Your task to perform on an android device: turn pop-ups off in chrome Image 0: 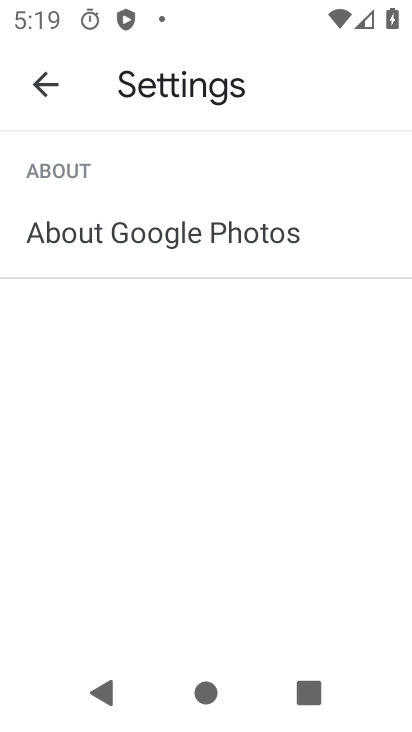
Step 0: press home button
Your task to perform on an android device: turn pop-ups off in chrome Image 1: 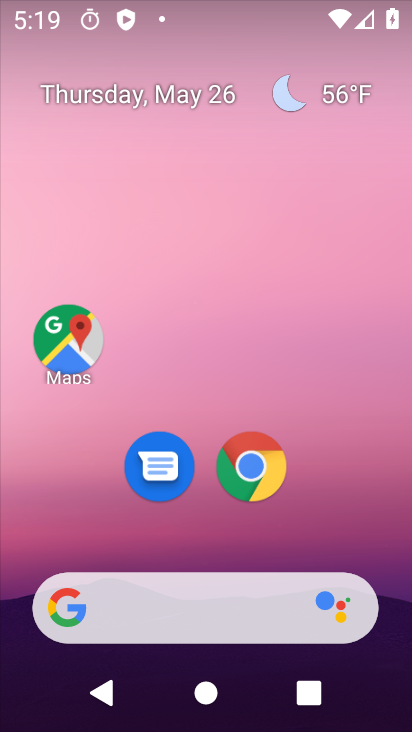
Step 1: click (269, 456)
Your task to perform on an android device: turn pop-ups off in chrome Image 2: 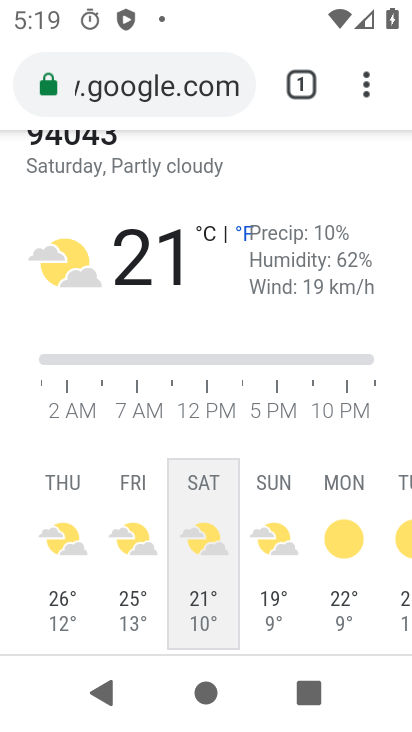
Step 2: click (362, 70)
Your task to perform on an android device: turn pop-ups off in chrome Image 3: 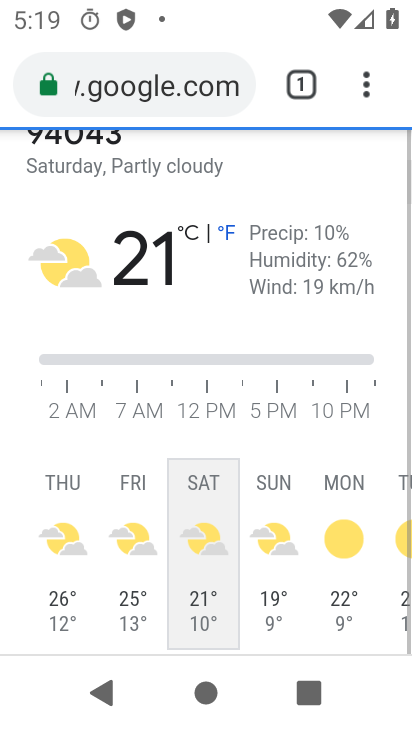
Step 3: drag from (362, 70) to (108, 533)
Your task to perform on an android device: turn pop-ups off in chrome Image 4: 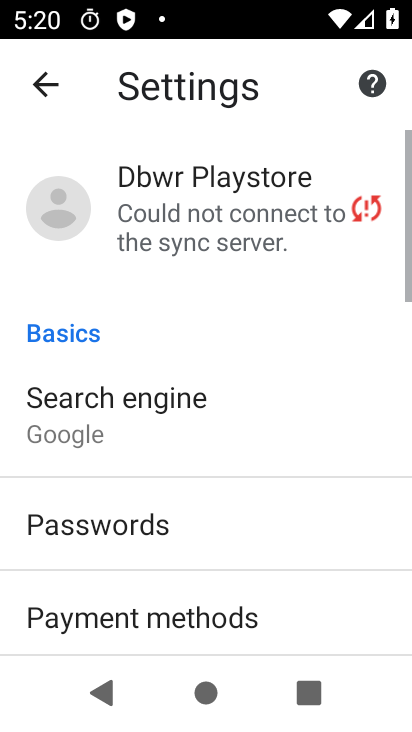
Step 4: drag from (356, 553) to (401, 150)
Your task to perform on an android device: turn pop-ups off in chrome Image 5: 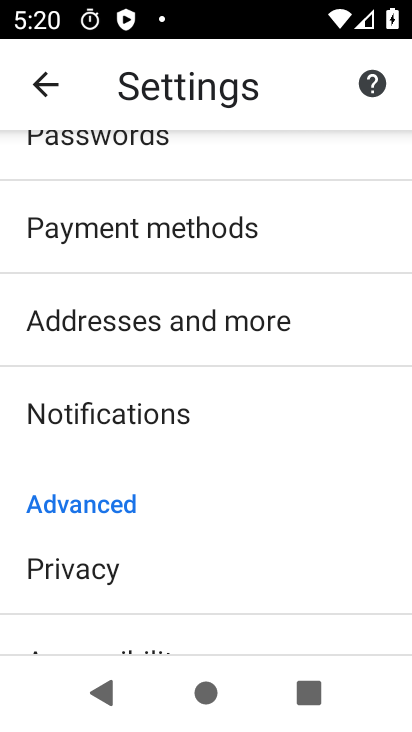
Step 5: drag from (159, 585) to (244, 223)
Your task to perform on an android device: turn pop-ups off in chrome Image 6: 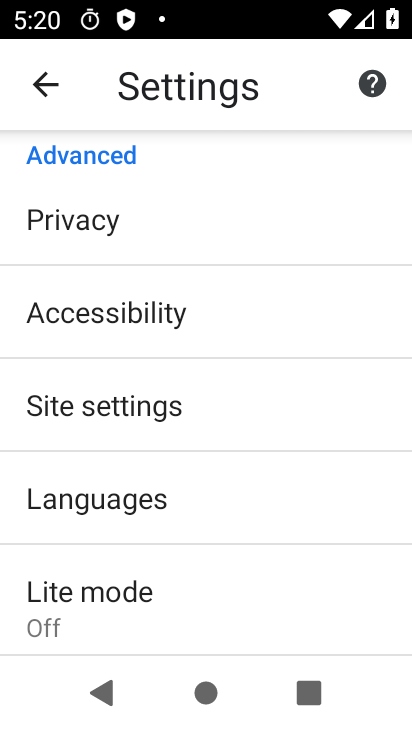
Step 6: click (117, 399)
Your task to perform on an android device: turn pop-ups off in chrome Image 7: 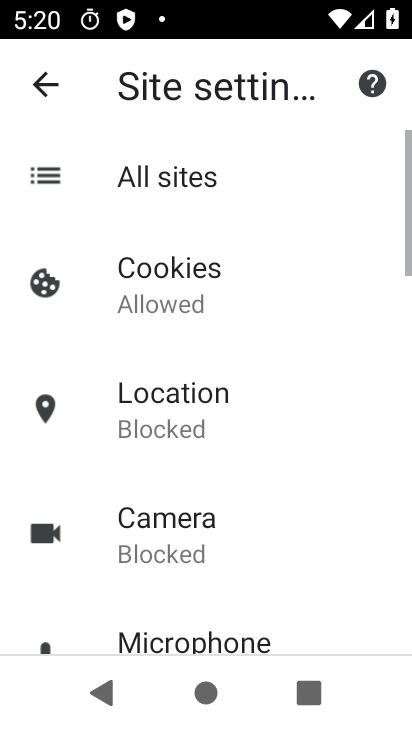
Step 7: drag from (261, 575) to (279, 184)
Your task to perform on an android device: turn pop-ups off in chrome Image 8: 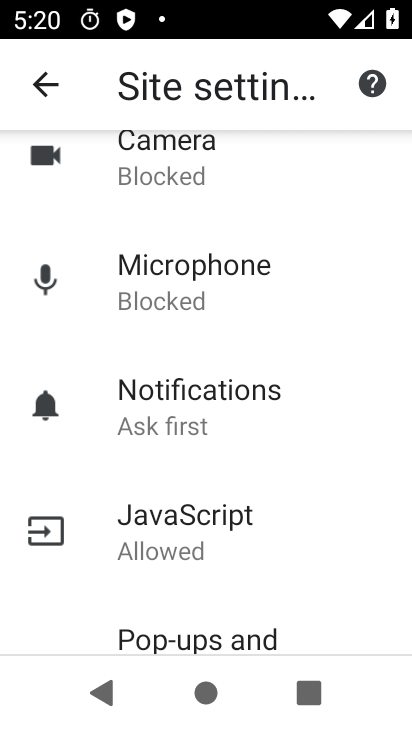
Step 8: drag from (267, 591) to (351, 286)
Your task to perform on an android device: turn pop-ups off in chrome Image 9: 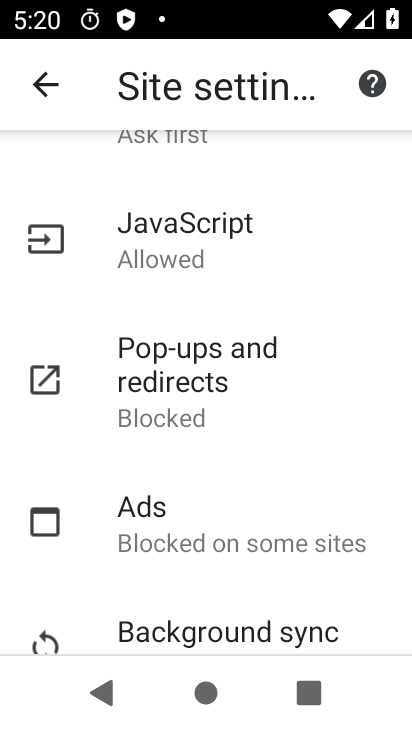
Step 9: click (169, 360)
Your task to perform on an android device: turn pop-ups off in chrome Image 10: 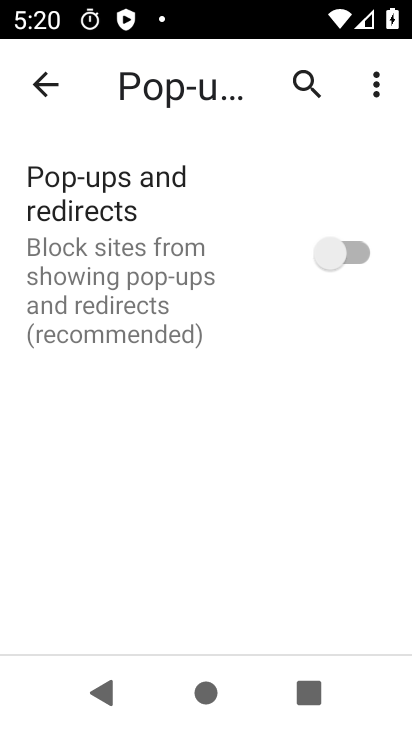
Step 10: task complete